Your task to perform on an android device: Empty the shopping cart on costco.com. Add alienware aurora to the cart on costco.com, then select checkout. Image 0: 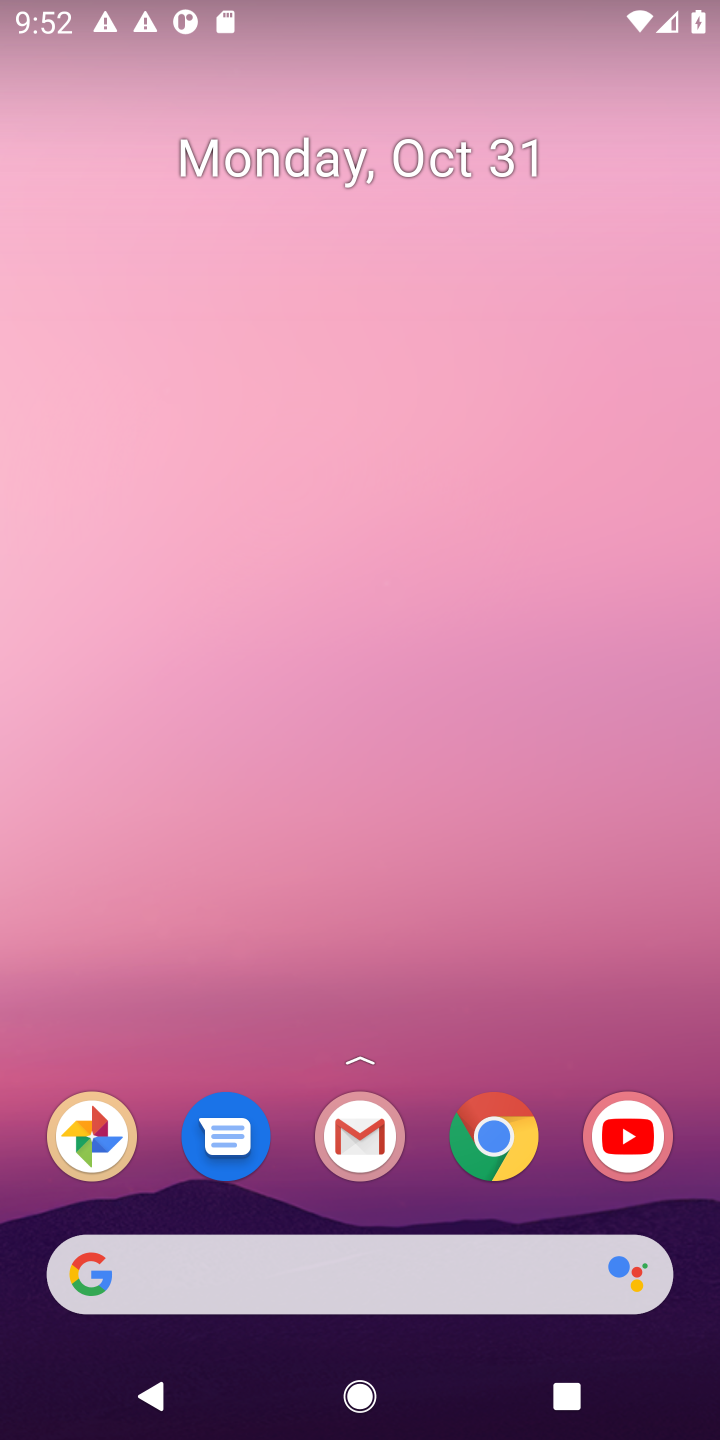
Step 0: press home button
Your task to perform on an android device: Empty the shopping cart on costco.com. Add alienware aurora to the cart on costco.com, then select checkout. Image 1: 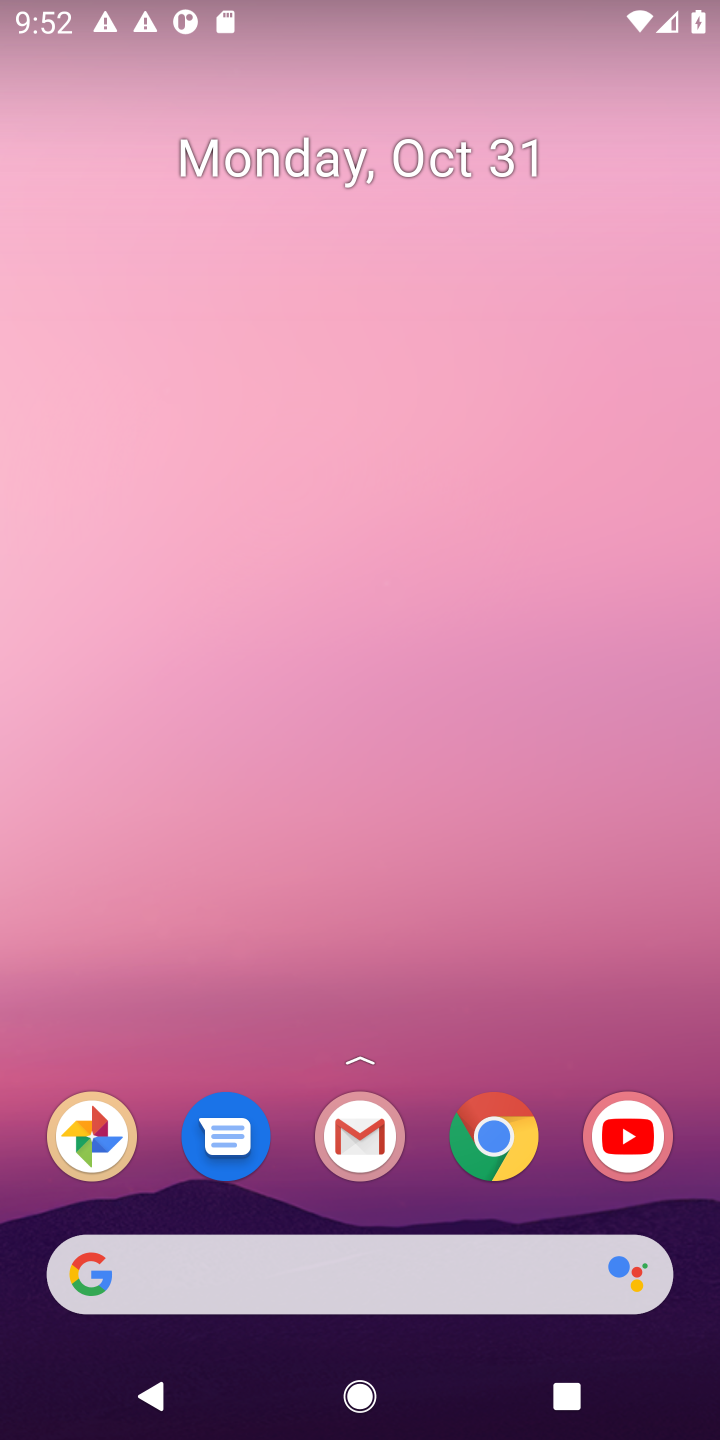
Step 1: click (131, 1285)
Your task to perform on an android device: Empty the shopping cart on costco.com. Add alienware aurora to the cart on costco.com, then select checkout. Image 2: 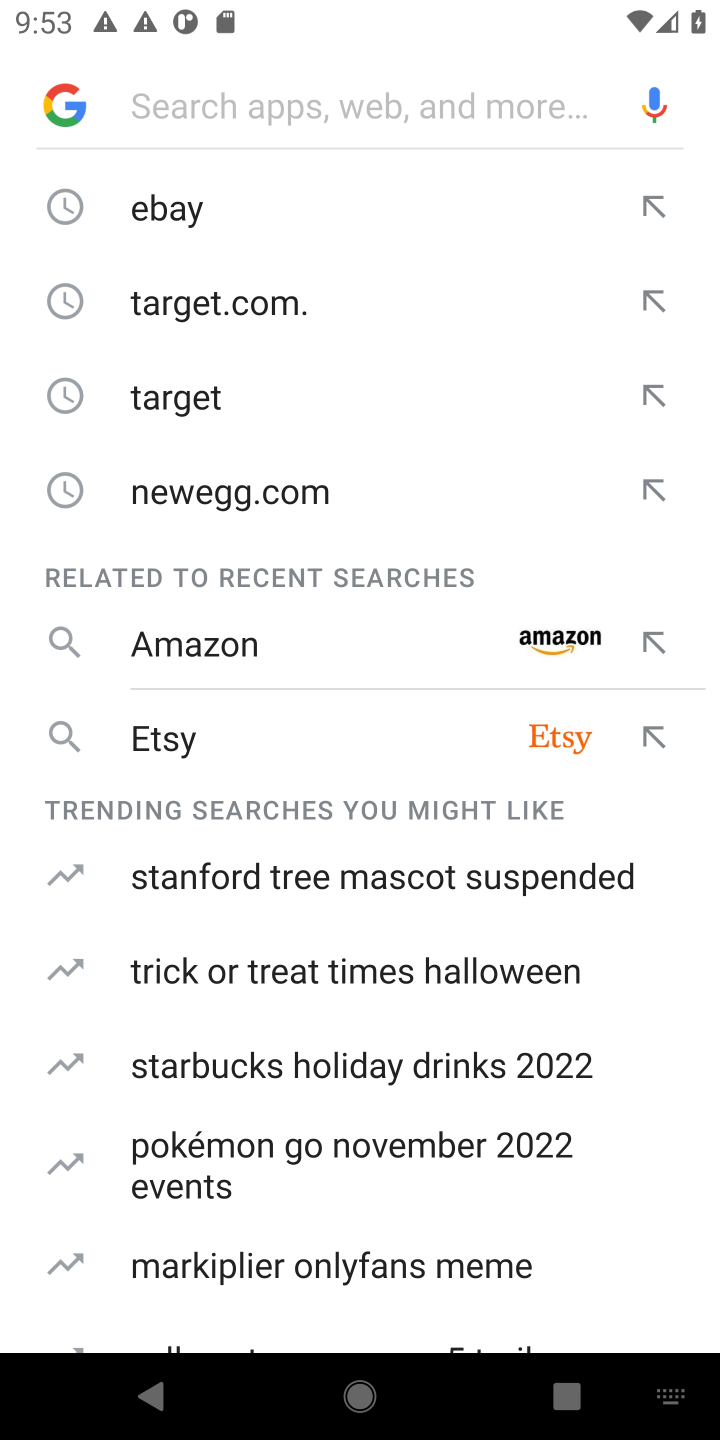
Step 2: type "costco.com"
Your task to perform on an android device: Empty the shopping cart on costco.com. Add alienware aurora to the cart on costco.com, then select checkout. Image 3: 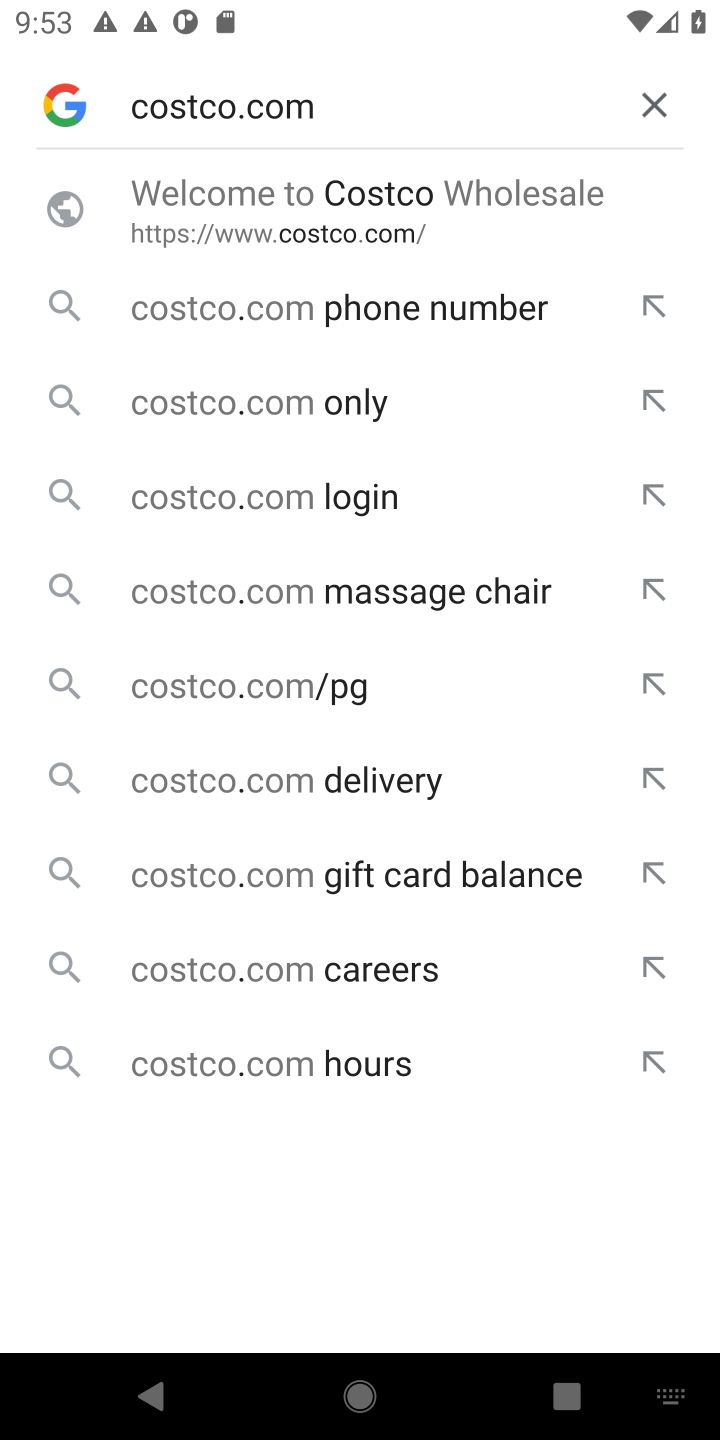
Step 3: press enter
Your task to perform on an android device: Empty the shopping cart on costco.com. Add alienware aurora to the cart on costco.com, then select checkout. Image 4: 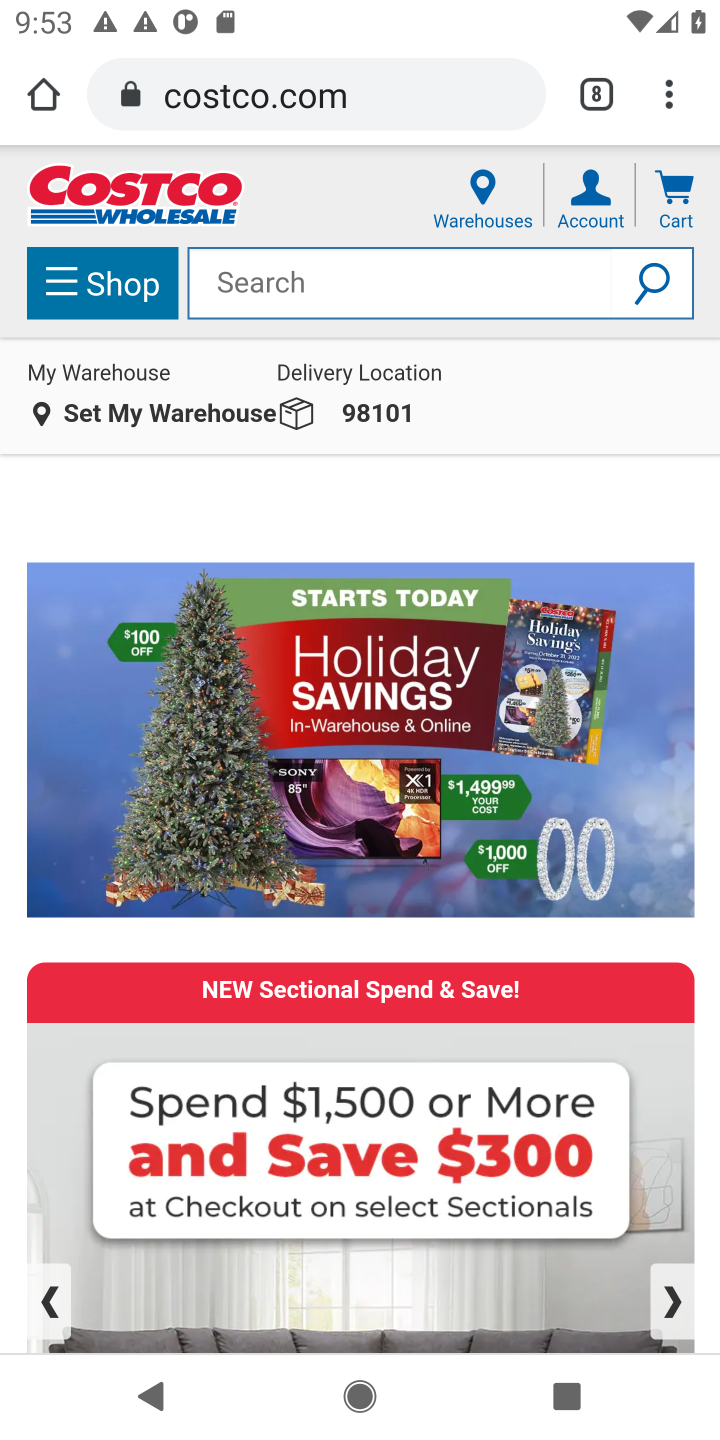
Step 4: click (675, 201)
Your task to perform on an android device: Empty the shopping cart on costco.com. Add alienware aurora to the cart on costco.com, then select checkout. Image 5: 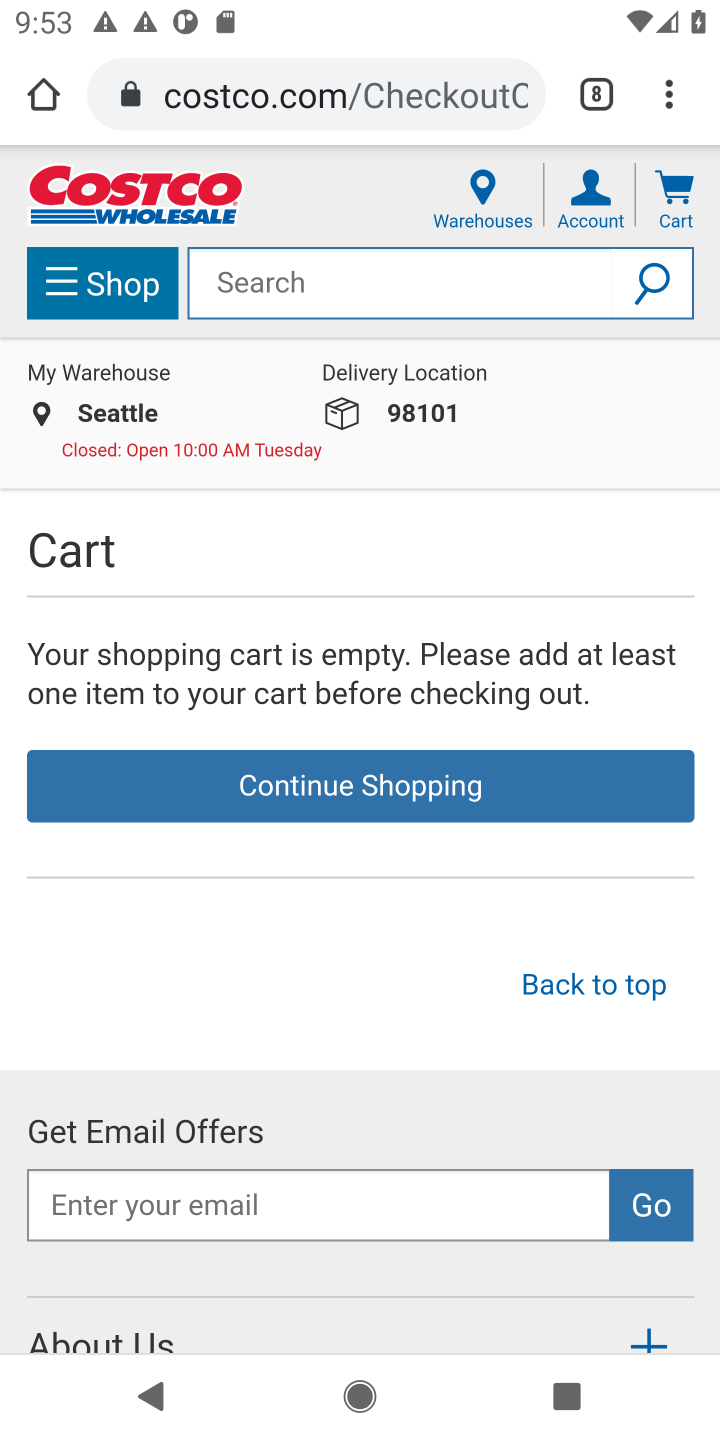
Step 5: click (672, 191)
Your task to perform on an android device: Empty the shopping cart on costco.com. Add alienware aurora to the cart on costco.com, then select checkout. Image 6: 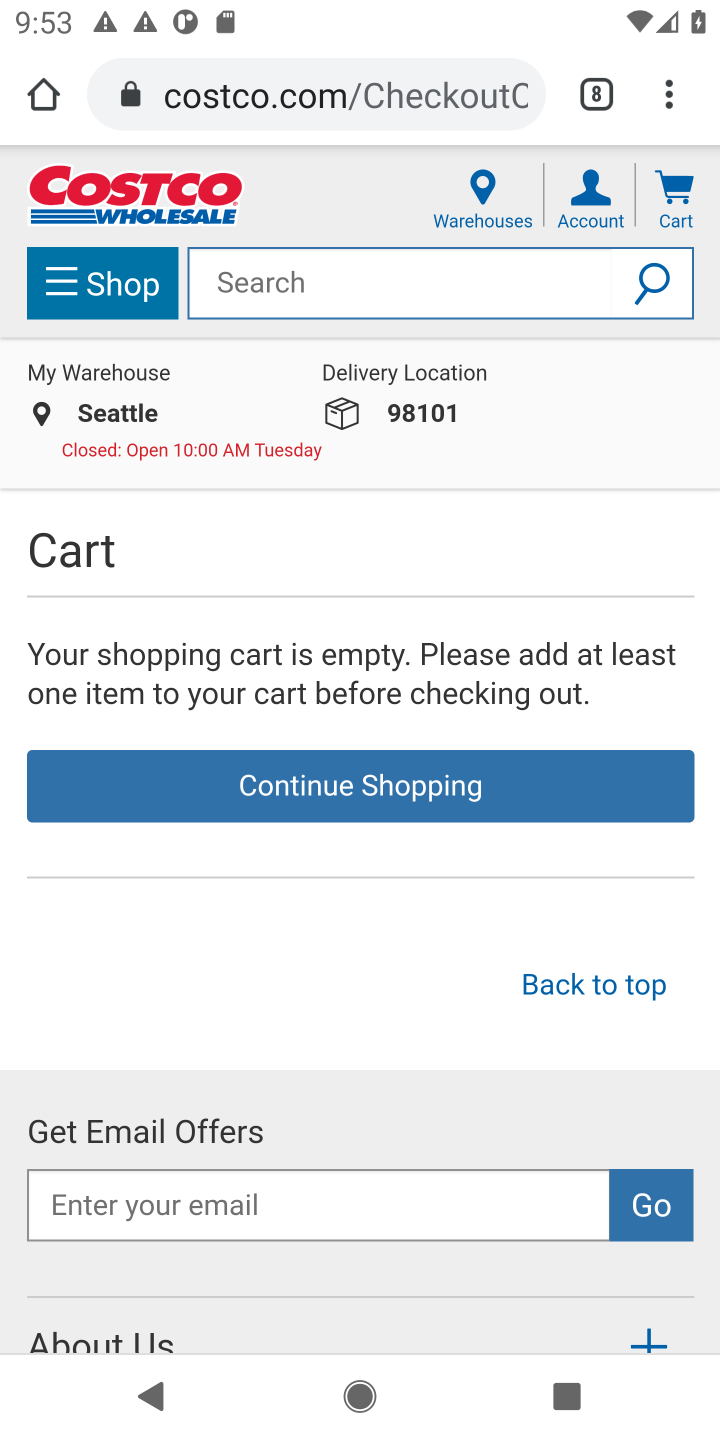
Step 6: click (297, 282)
Your task to perform on an android device: Empty the shopping cart on costco.com. Add alienware aurora to the cart on costco.com, then select checkout. Image 7: 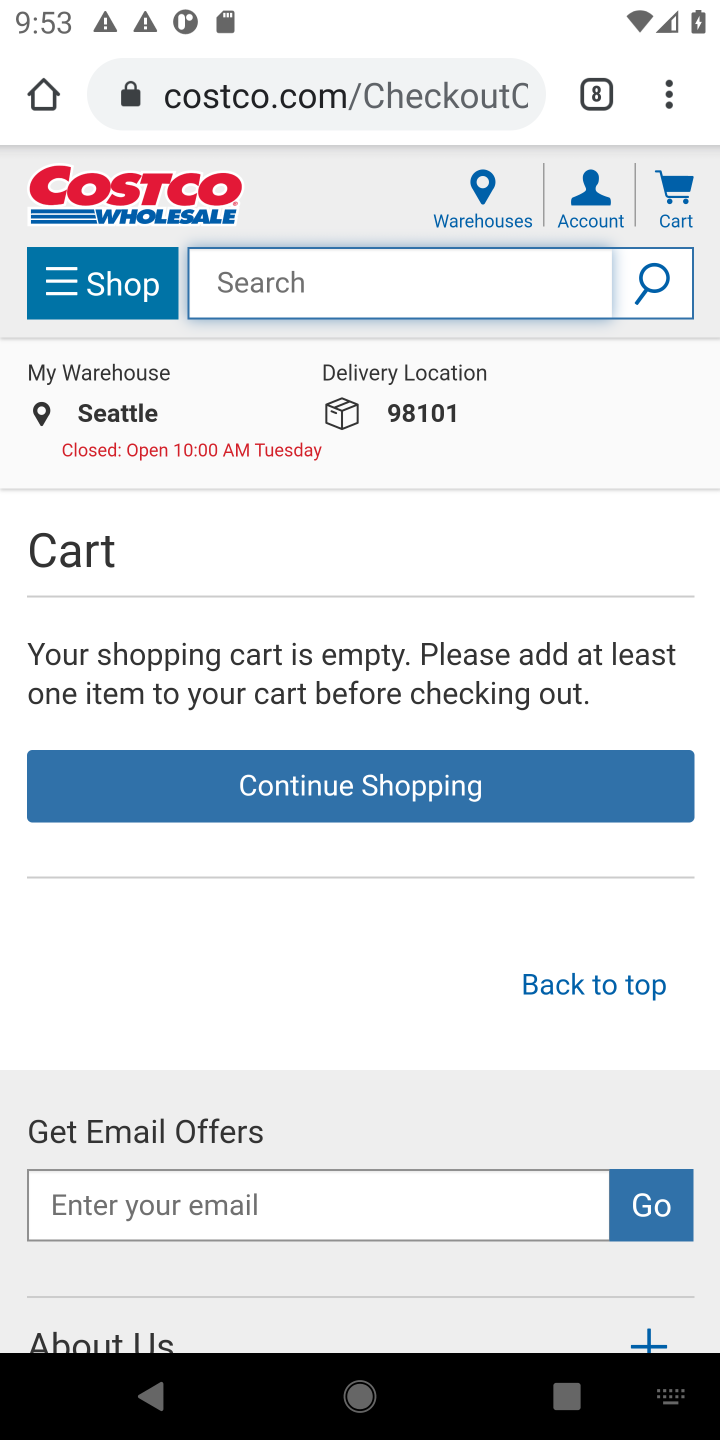
Step 7: type " alienware aurora "
Your task to perform on an android device: Empty the shopping cart on costco.com. Add alienware aurora to the cart on costco.com, then select checkout. Image 8: 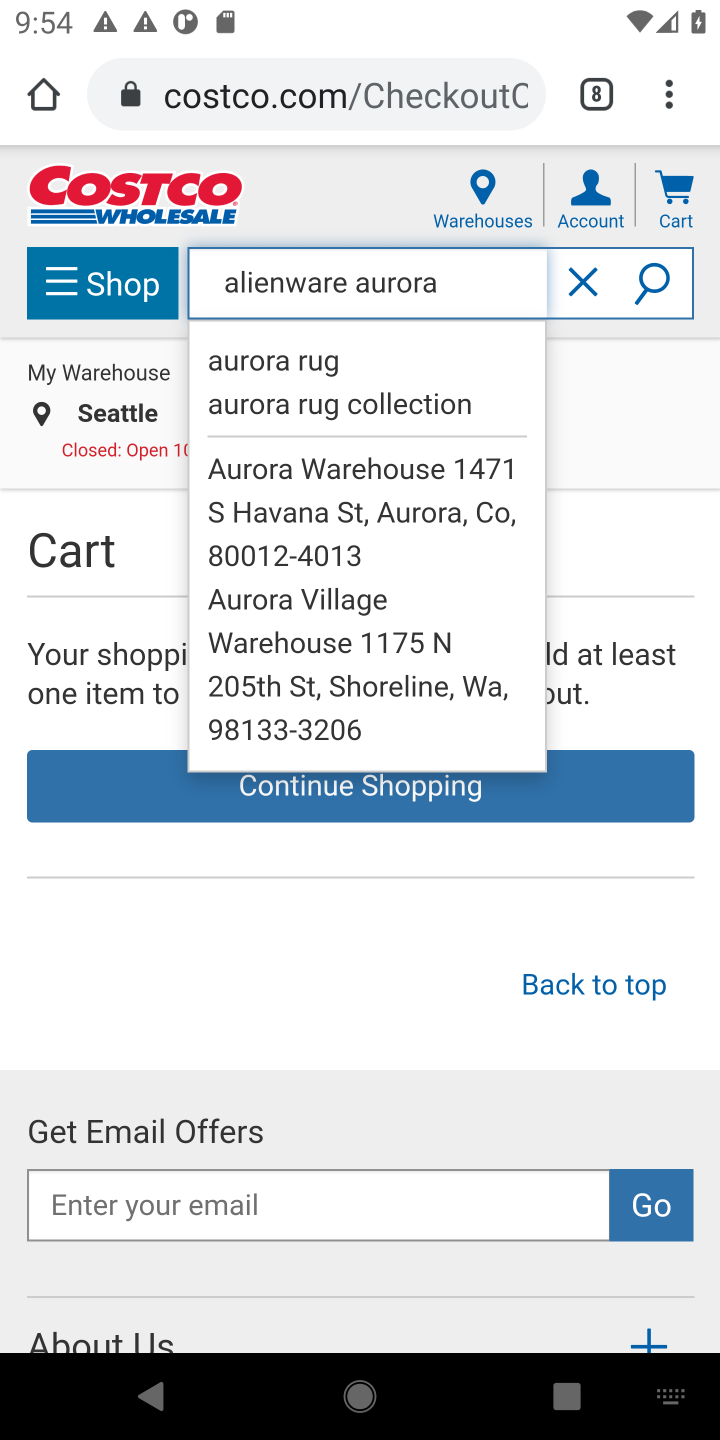
Step 8: click (652, 277)
Your task to perform on an android device: Empty the shopping cart on costco.com. Add alienware aurora to the cart on costco.com, then select checkout. Image 9: 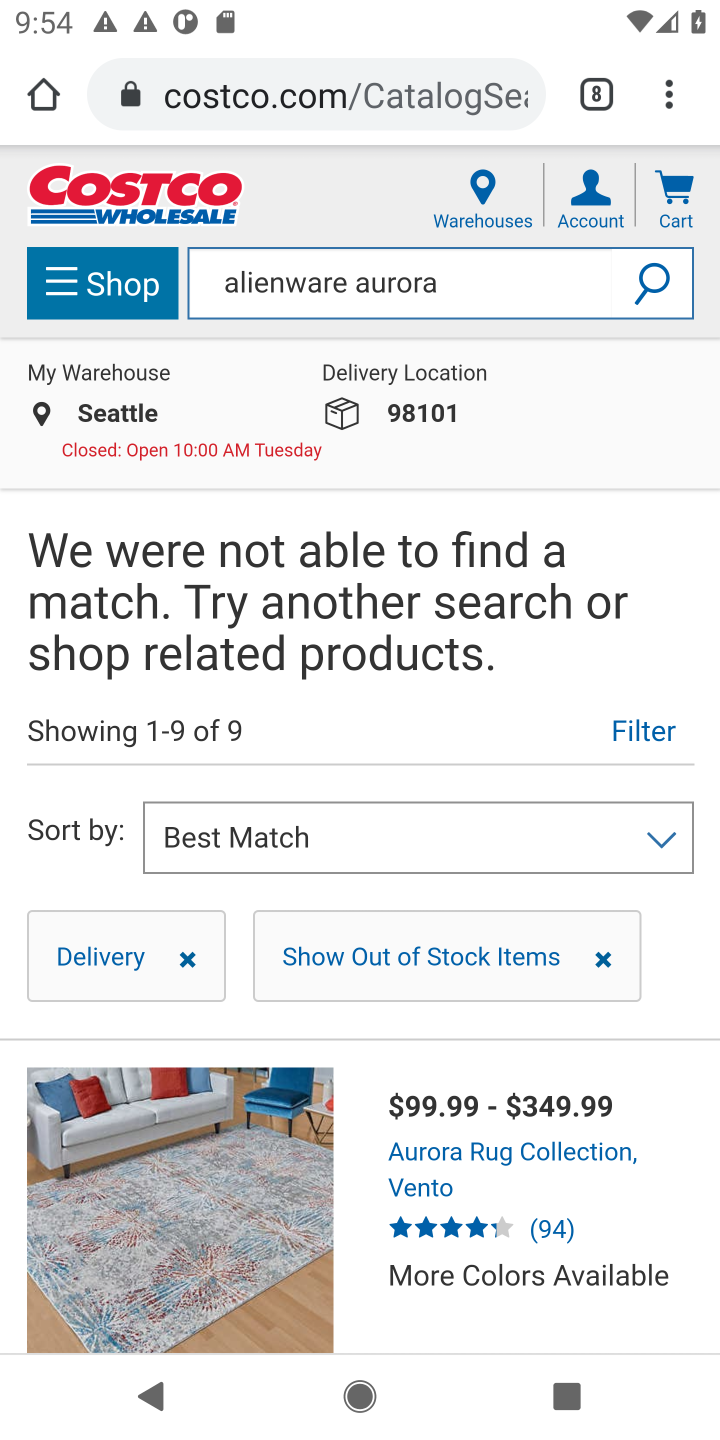
Step 9: task complete